Your task to perform on an android device: Is it going to rain tomorrow? Image 0: 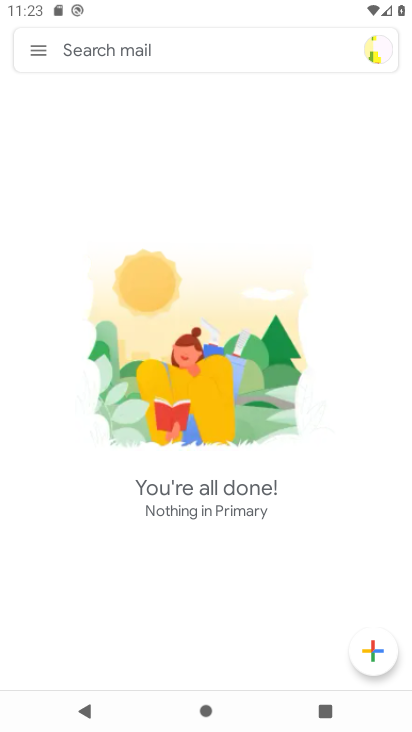
Step 0: press home button
Your task to perform on an android device: Is it going to rain tomorrow? Image 1: 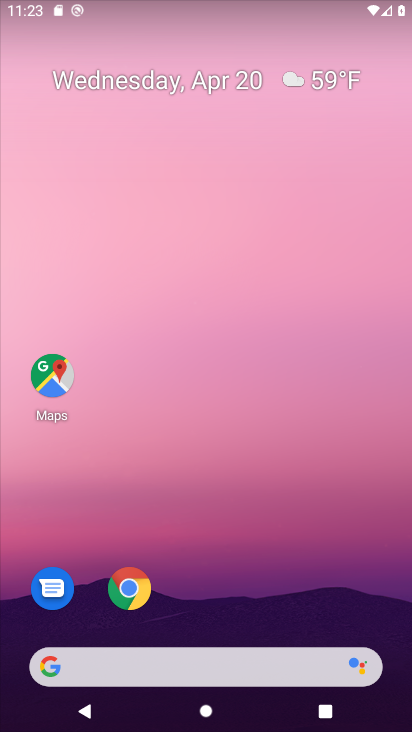
Step 1: click (292, 75)
Your task to perform on an android device: Is it going to rain tomorrow? Image 2: 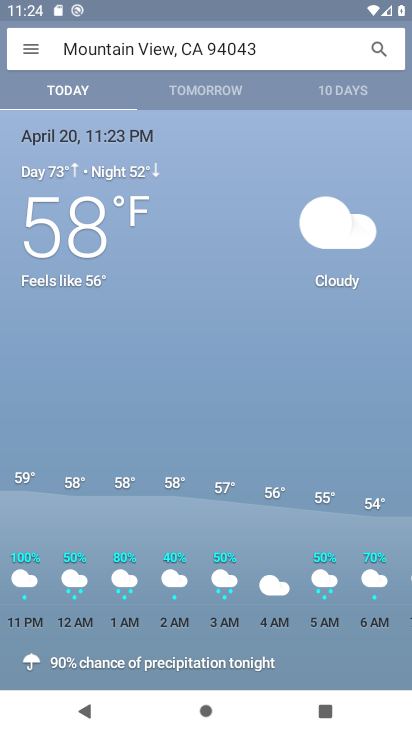
Step 2: click (318, 592)
Your task to perform on an android device: Is it going to rain tomorrow? Image 3: 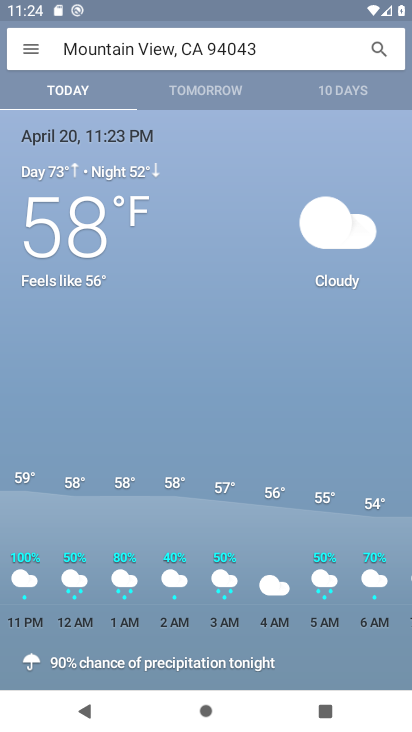
Step 3: click (312, 574)
Your task to perform on an android device: Is it going to rain tomorrow? Image 4: 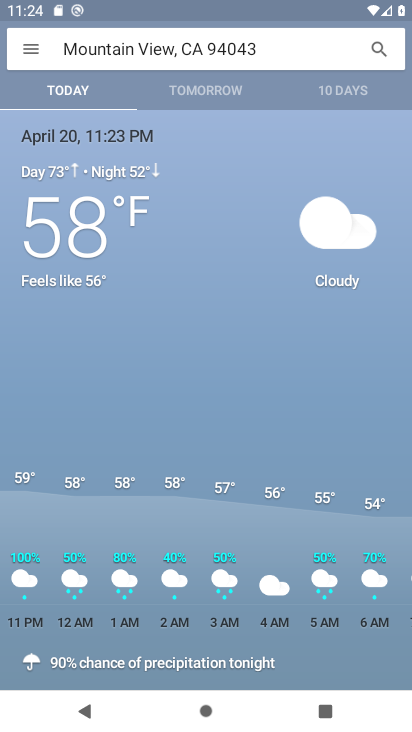
Step 4: click (209, 90)
Your task to perform on an android device: Is it going to rain tomorrow? Image 5: 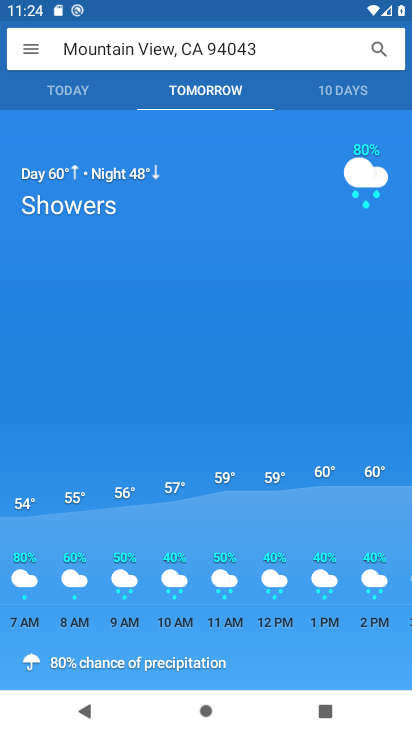
Step 5: task complete